Your task to perform on an android device: Open network settings Image 0: 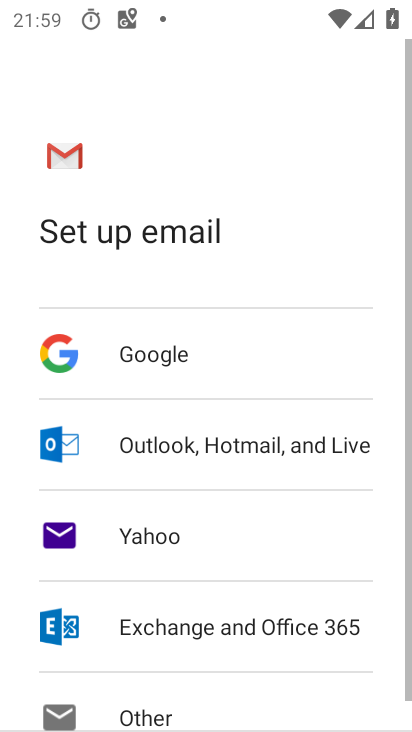
Step 0: press home button
Your task to perform on an android device: Open network settings Image 1: 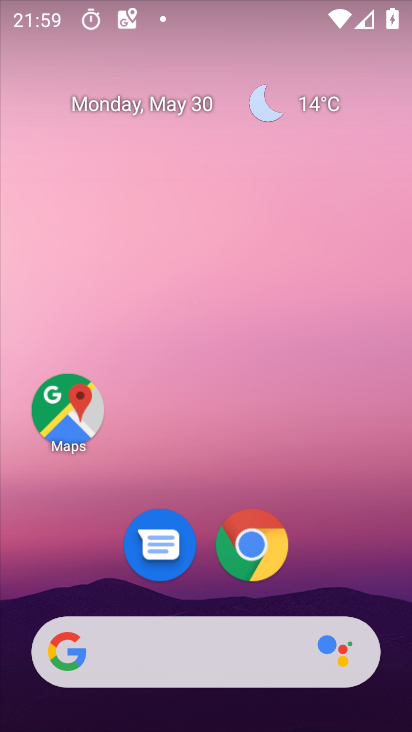
Step 1: drag from (304, 543) to (329, 170)
Your task to perform on an android device: Open network settings Image 2: 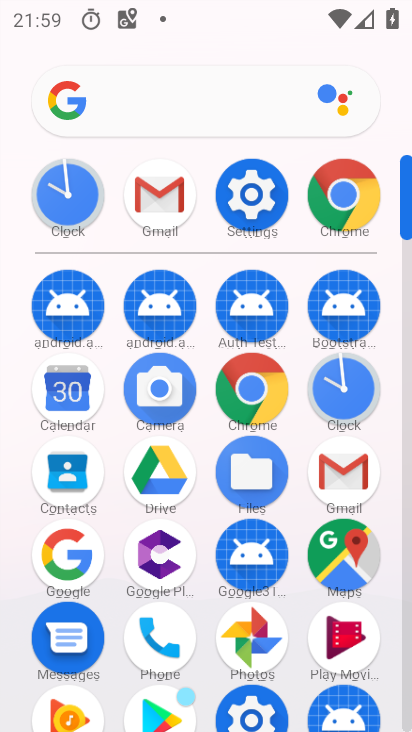
Step 2: click (246, 184)
Your task to perform on an android device: Open network settings Image 3: 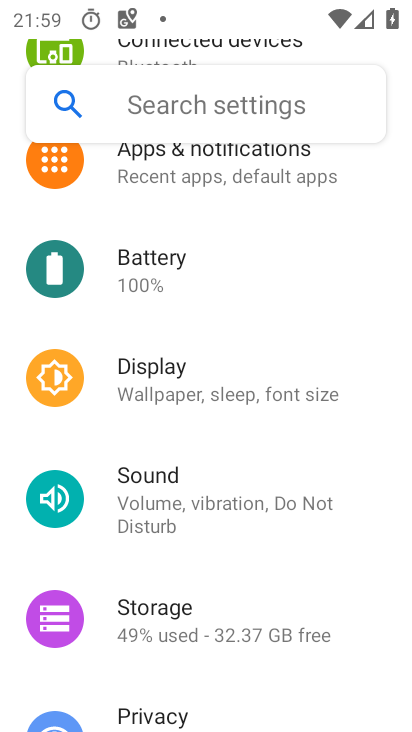
Step 3: drag from (257, 229) to (205, 642)
Your task to perform on an android device: Open network settings Image 4: 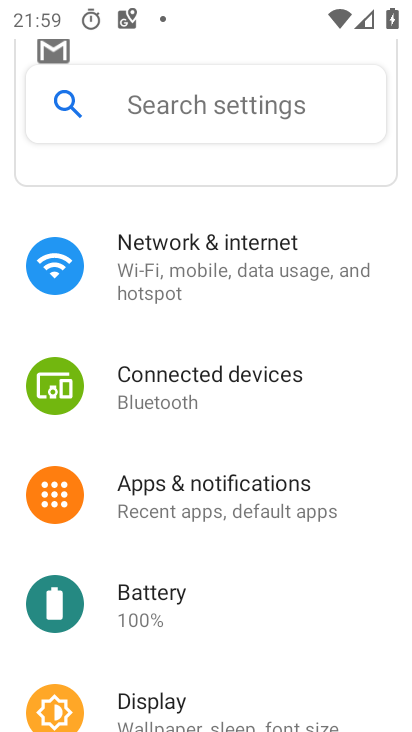
Step 4: click (244, 270)
Your task to perform on an android device: Open network settings Image 5: 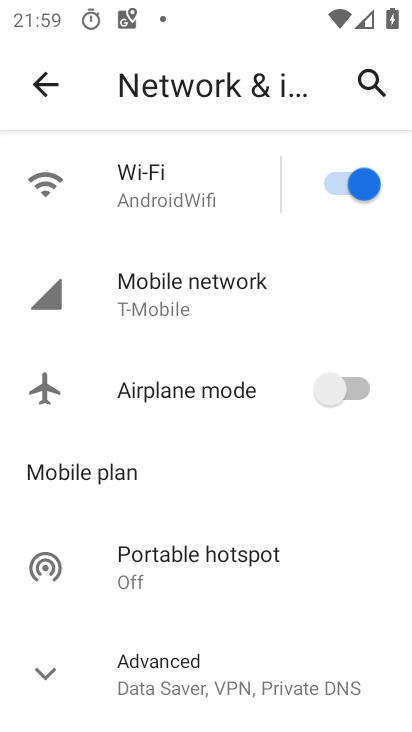
Step 5: task complete